Your task to perform on an android device: Open calendar and show me the first week of next month Image 0: 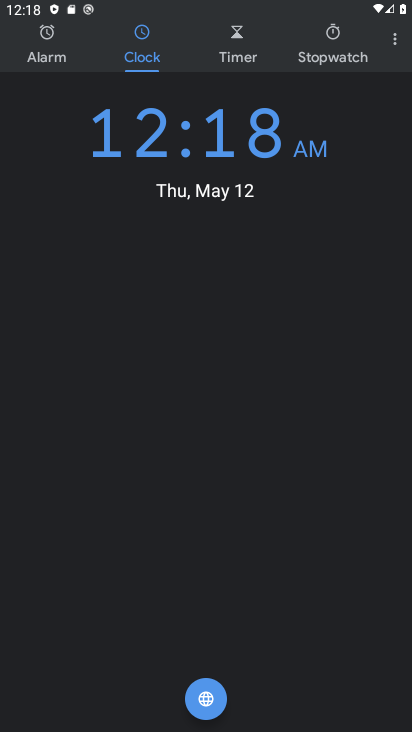
Step 0: press home button
Your task to perform on an android device: Open calendar and show me the first week of next month Image 1: 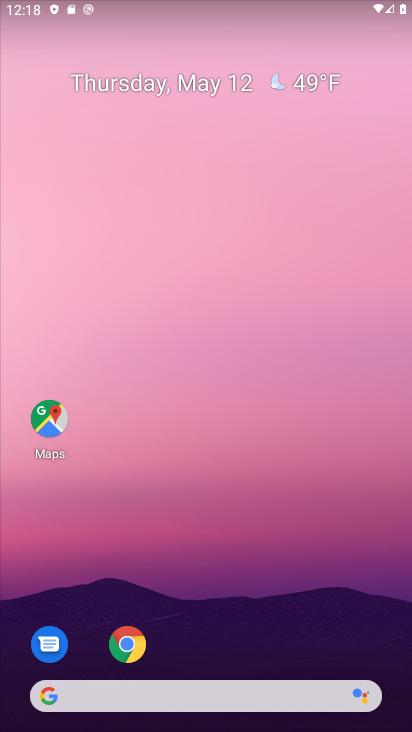
Step 1: drag from (298, 539) to (262, 8)
Your task to perform on an android device: Open calendar and show me the first week of next month Image 2: 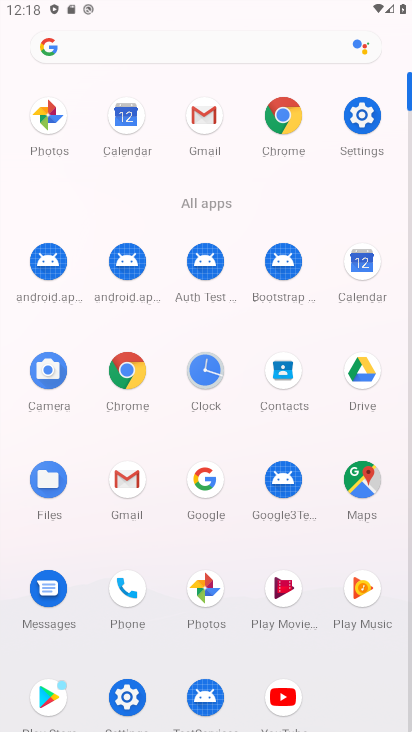
Step 2: click (356, 264)
Your task to perform on an android device: Open calendar and show me the first week of next month Image 3: 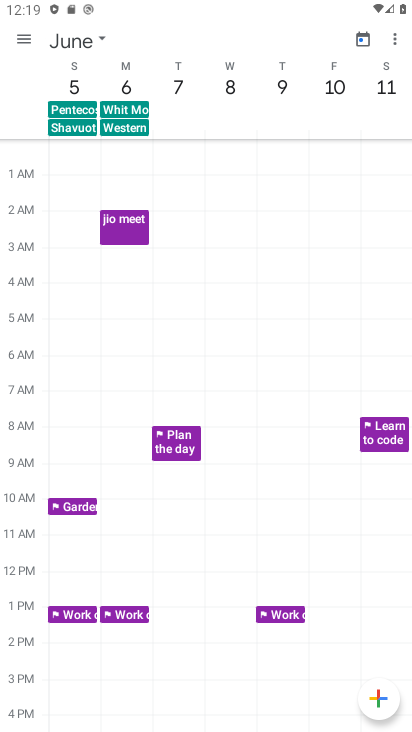
Step 3: click (94, 36)
Your task to perform on an android device: Open calendar and show me the first week of next month Image 4: 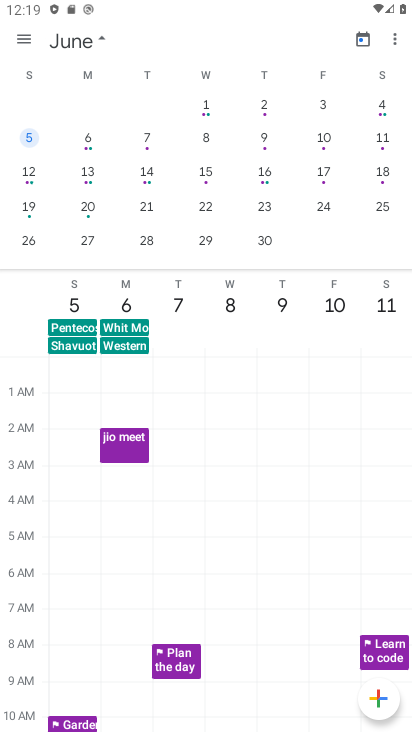
Step 4: click (204, 108)
Your task to perform on an android device: Open calendar and show me the first week of next month Image 5: 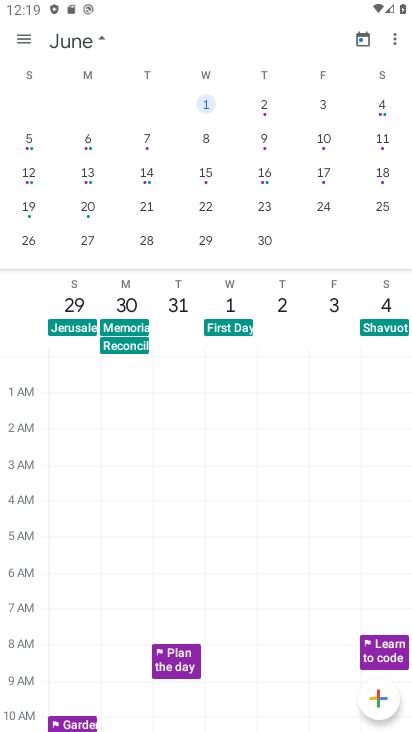
Step 5: task complete